Your task to perform on an android device: check storage Image 0: 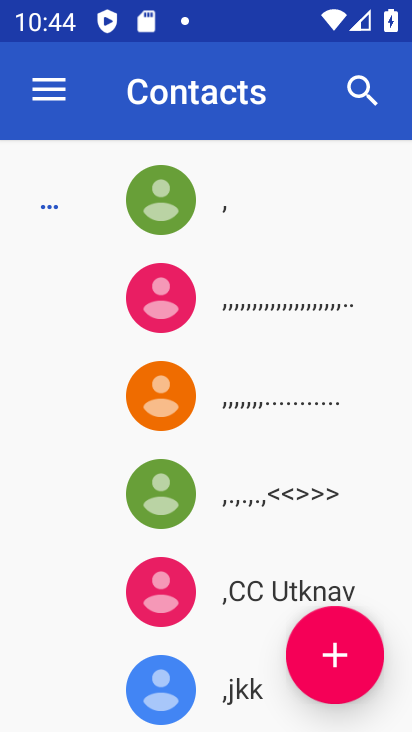
Step 0: press home button
Your task to perform on an android device: check storage Image 1: 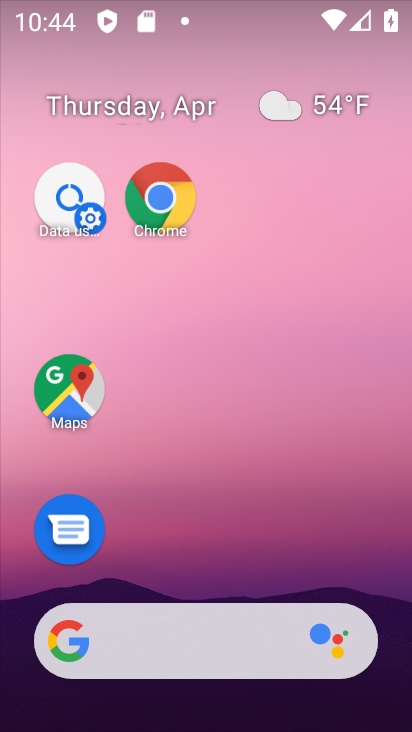
Step 1: drag from (223, 589) to (234, 3)
Your task to perform on an android device: check storage Image 2: 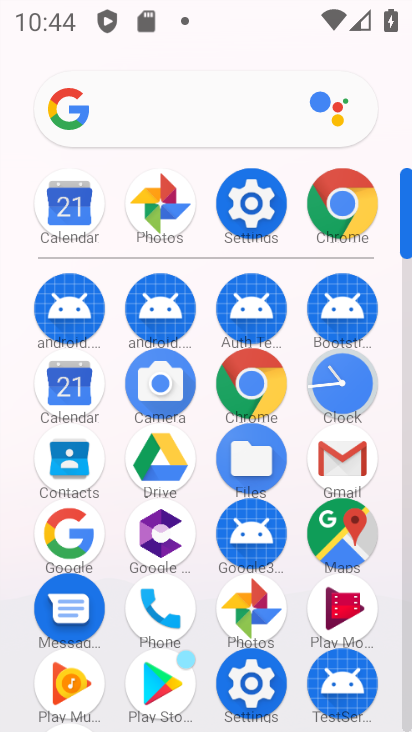
Step 2: click (264, 224)
Your task to perform on an android device: check storage Image 3: 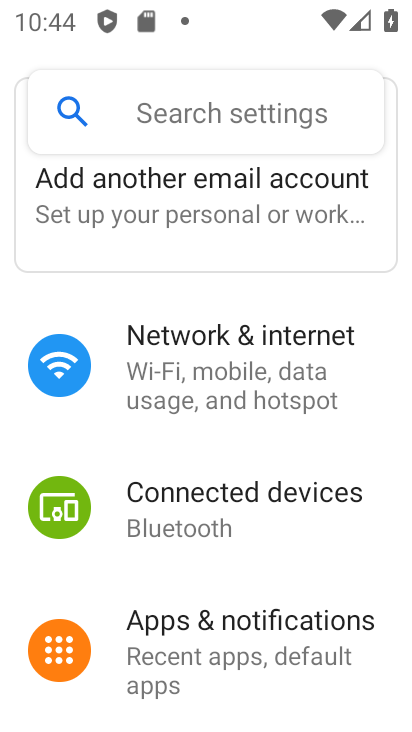
Step 3: drag from (281, 641) to (229, 267)
Your task to perform on an android device: check storage Image 4: 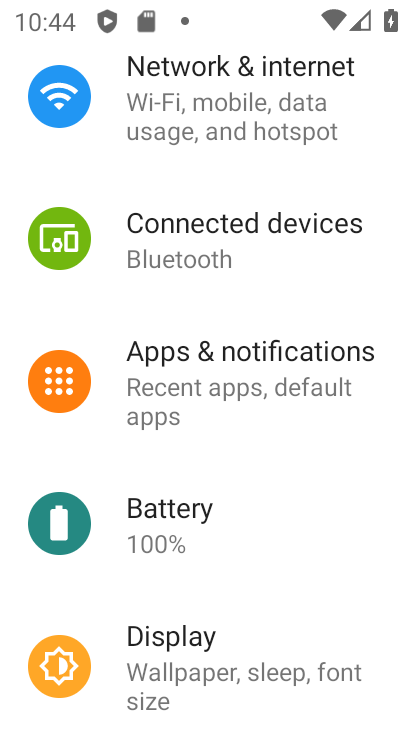
Step 4: drag from (207, 560) to (199, 278)
Your task to perform on an android device: check storage Image 5: 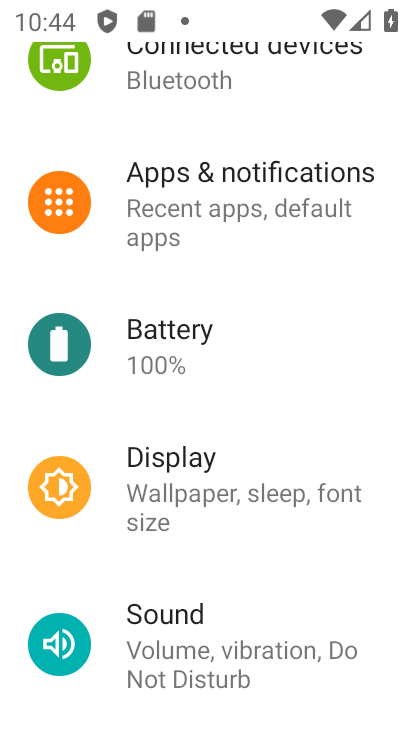
Step 5: drag from (255, 559) to (181, 225)
Your task to perform on an android device: check storage Image 6: 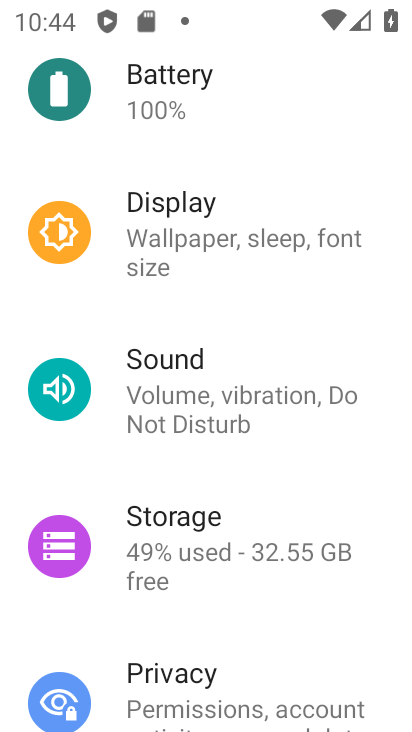
Step 6: click (193, 556)
Your task to perform on an android device: check storage Image 7: 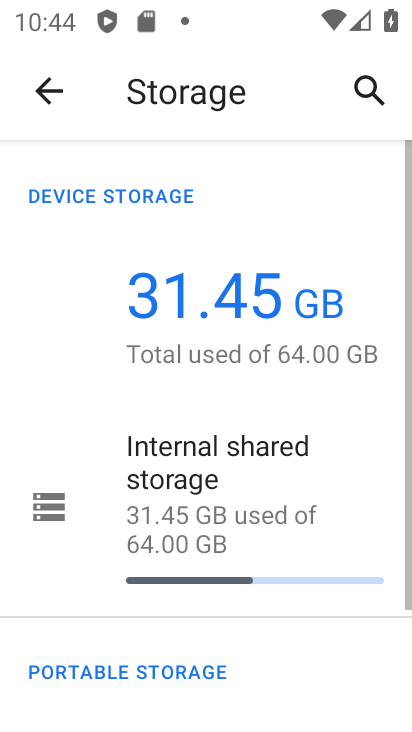
Step 7: drag from (218, 592) to (184, 323)
Your task to perform on an android device: check storage Image 8: 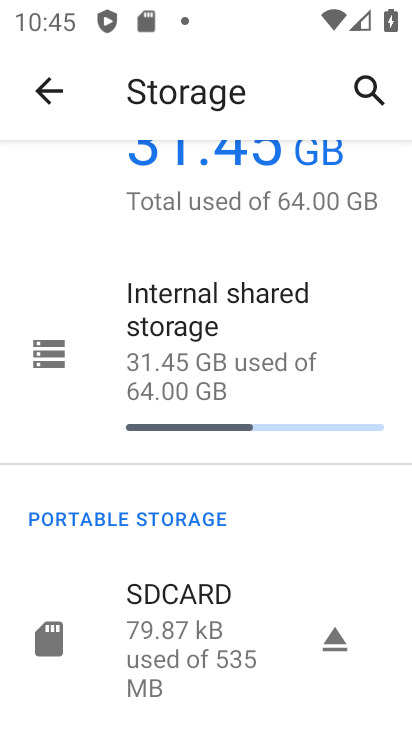
Step 8: click (187, 388)
Your task to perform on an android device: check storage Image 9: 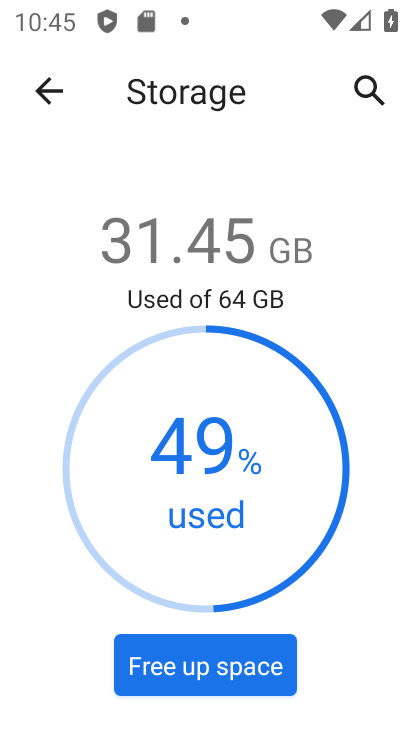
Step 9: task complete